Your task to perform on an android device: change keyboard looks Image 0: 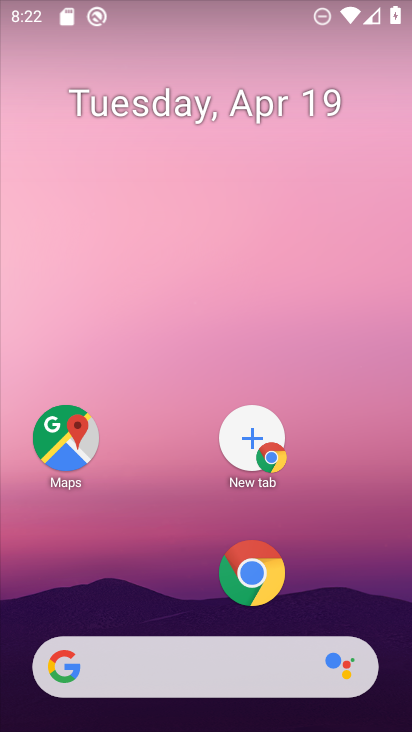
Step 0: drag from (149, 597) to (180, 28)
Your task to perform on an android device: change keyboard looks Image 1: 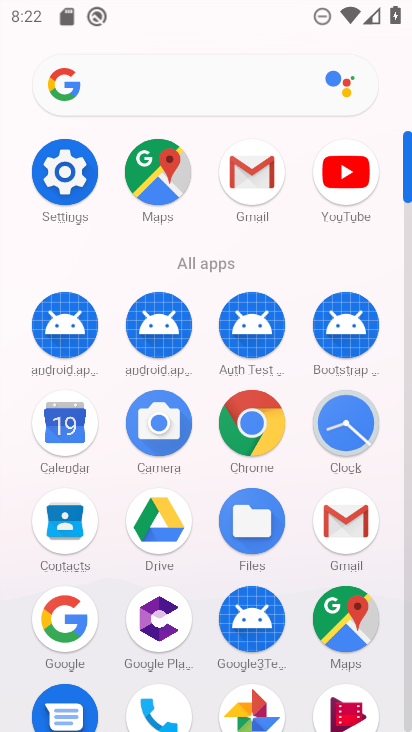
Step 1: click (69, 172)
Your task to perform on an android device: change keyboard looks Image 2: 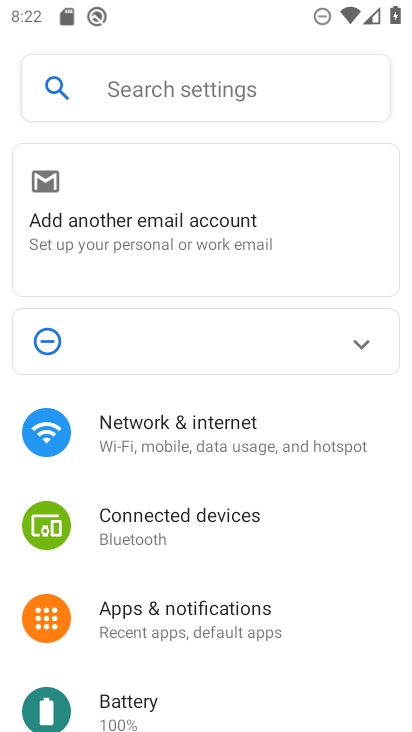
Step 2: click (173, 76)
Your task to perform on an android device: change keyboard looks Image 3: 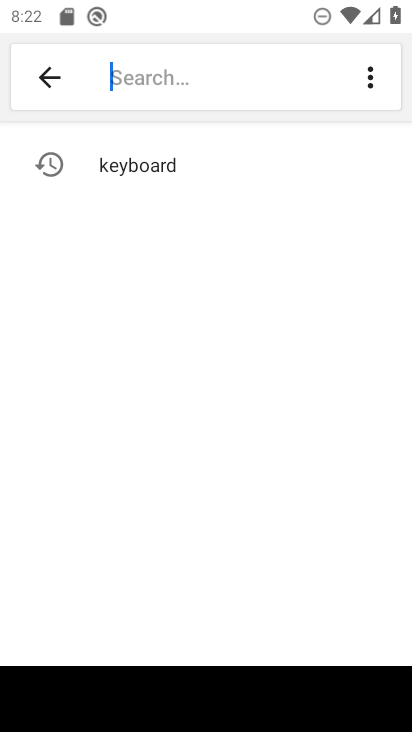
Step 3: click (217, 176)
Your task to perform on an android device: change keyboard looks Image 4: 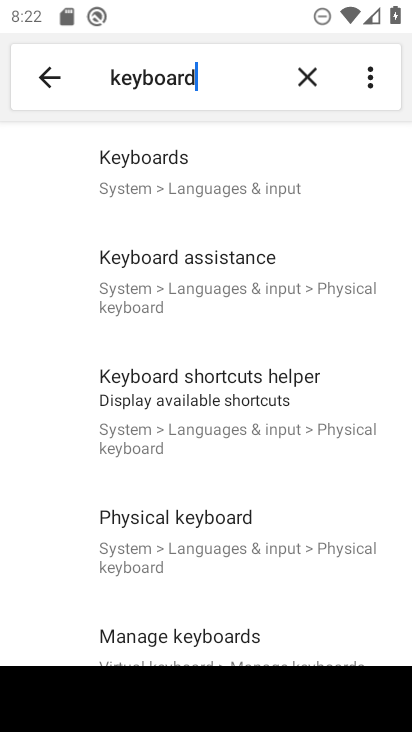
Step 4: click (217, 176)
Your task to perform on an android device: change keyboard looks Image 5: 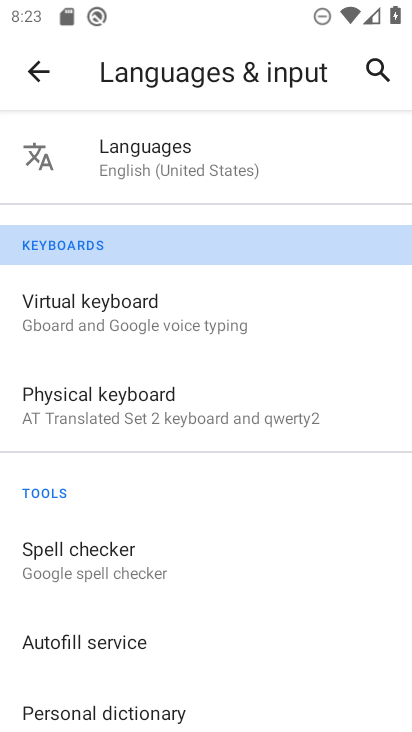
Step 5: click (102, 314)
Your task to perform on an android device: change keyboard looks Image 6: 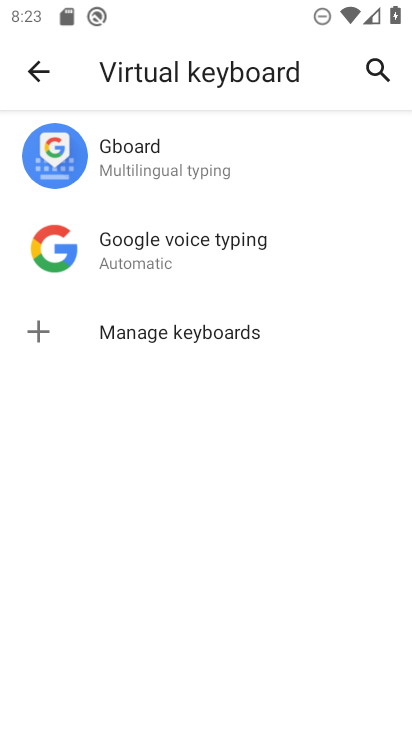
Step 6: click (180, 158)
Your task to perform on an android device: change keyboard looks Image 7: 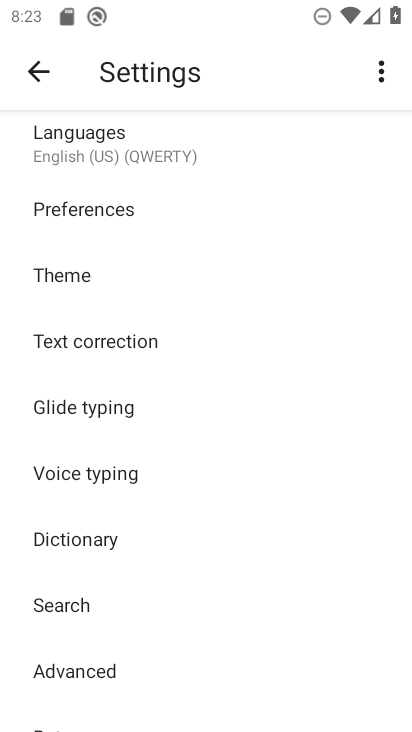
Step 7: click (123, 283)
Your task to perform on an android device: change keyboard looks Image 8: 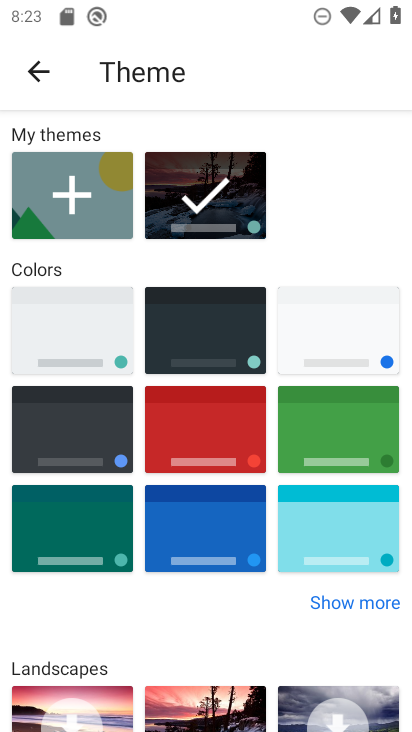
Step 8: click (321, 330)
Your task to perform on an android device: change keyboard looks Image 9: 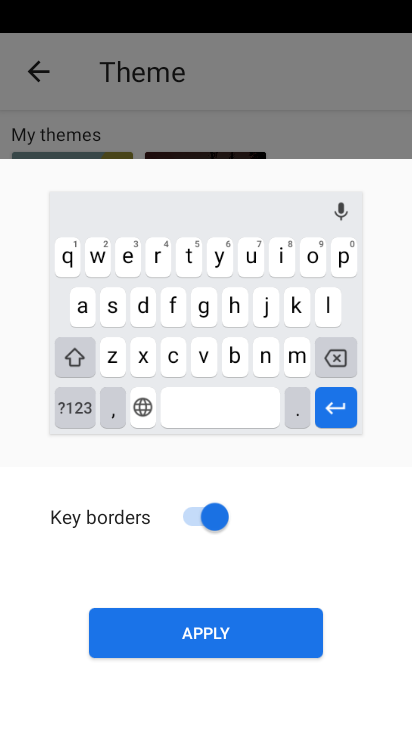
Step 9: click (185, 522)
Your task to perform on an android device: change keyboard looks Image 10: 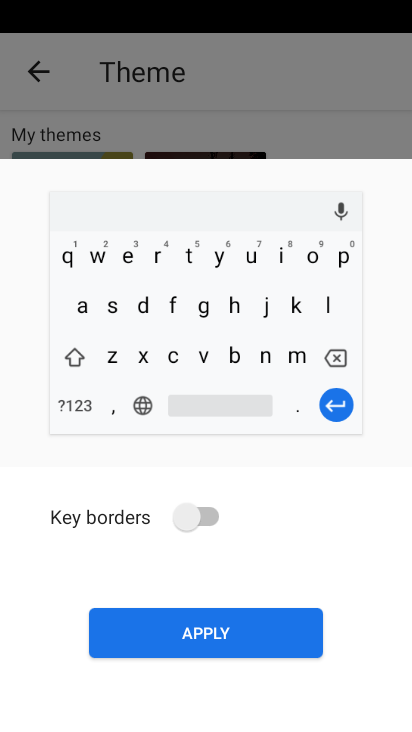
Step 10: click (232, 633)
Your task to perform on an android device: change keyboard looks Image 11: 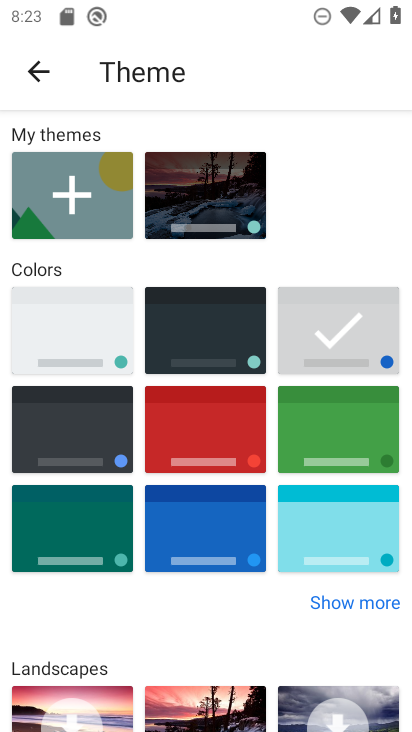
Step 11: task complete